Your task to perform on an android device: turn off location history Image 0: 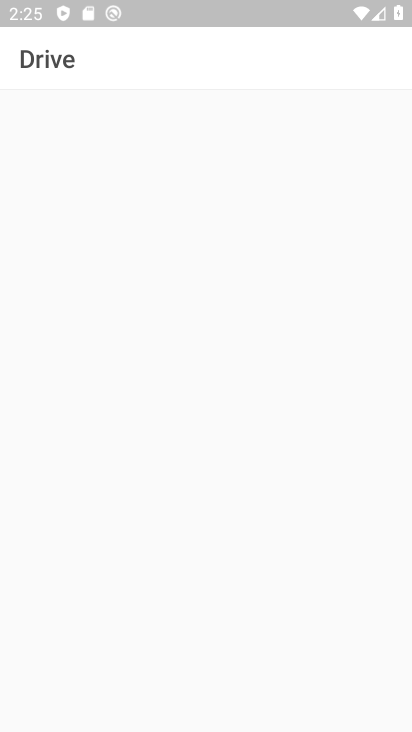
Step 0: click (205, 661)
Your task to perform on an android device: turn off location history Image 1: 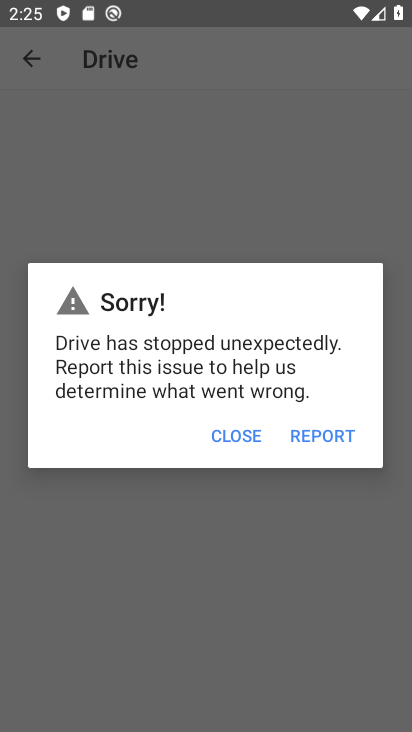
Step 1: click (246, 440)
Your task to perform on an android device: turn off location history Image 2: 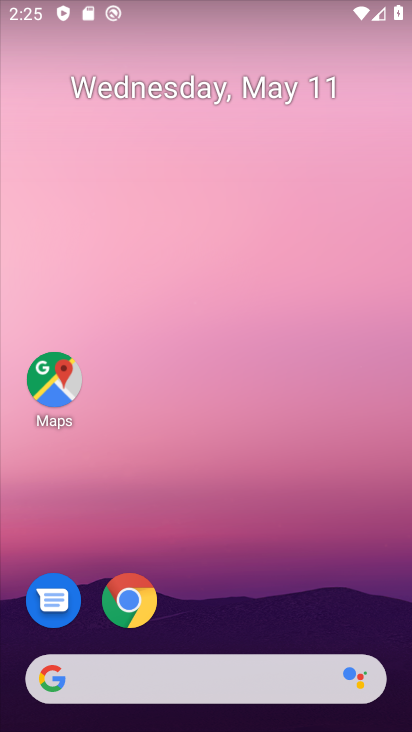
Step 2: click (163, 679)
Your task to perform on an android device: turn off location history Image 3: 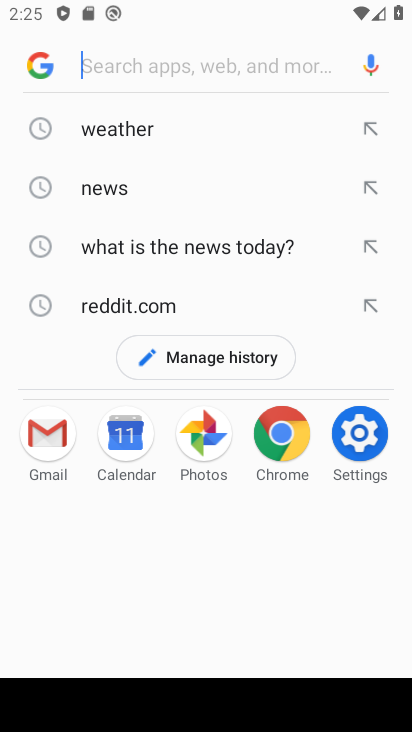
Step 3: press home button
Your task to perform on an android device: turn off location history Image 4: 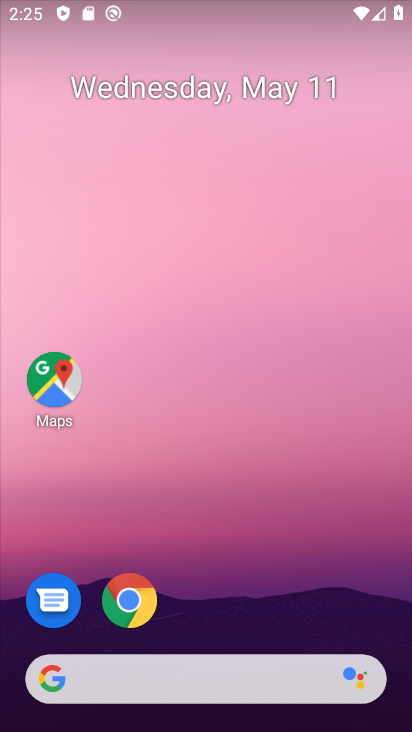
Step 4: drag from (179, 587) to (254, 0)
Your task to perform on an android device: turn off location history Image 5: 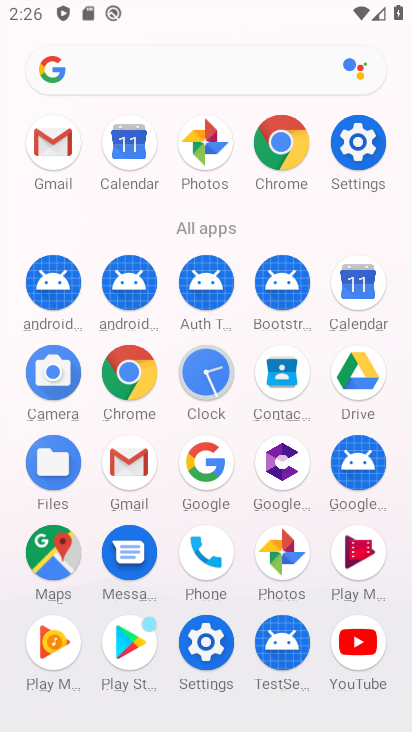
Step 5: click (379, 143)
Your task to perform on an android device: turn off location history Image 6: 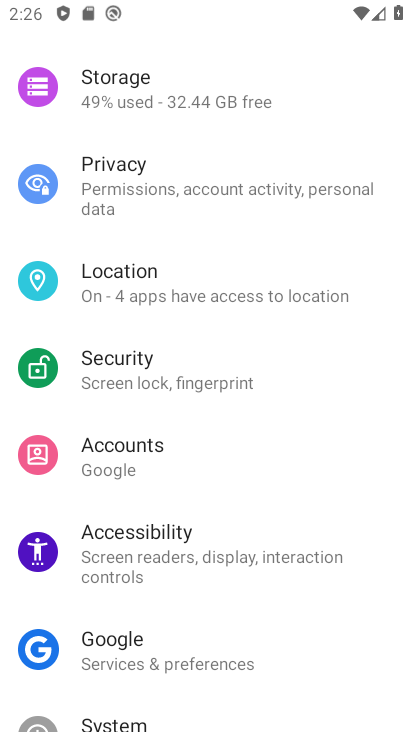
Step 6: click (222, 280)
Your task to perform on an android device: turn off location history Image 7: 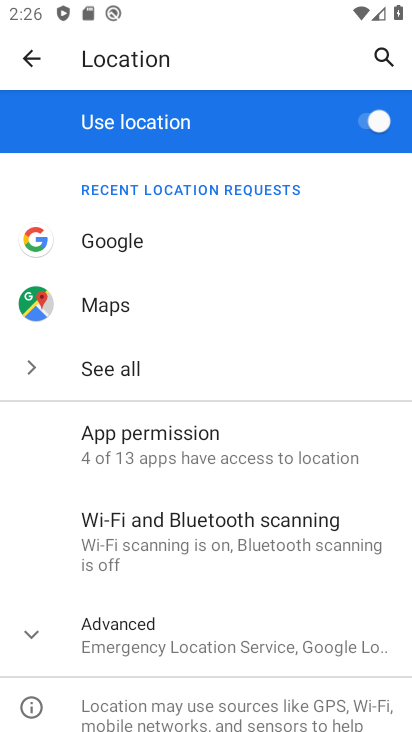
Step 7: click (372, 120)
Your task to perform on an android device: turn off location history Image 8: 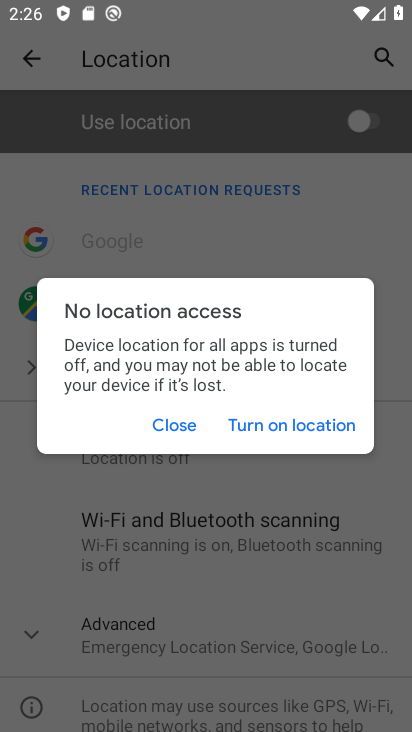
Step 8: click (163, 421)
Your task to perform on an android device: turn off location history Image 9: 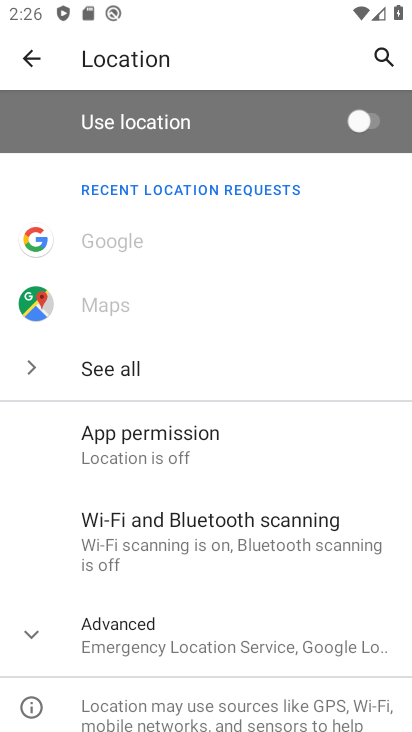
Step 9: task complete